Your task to perform on an android device: Open my contact list Image 0: 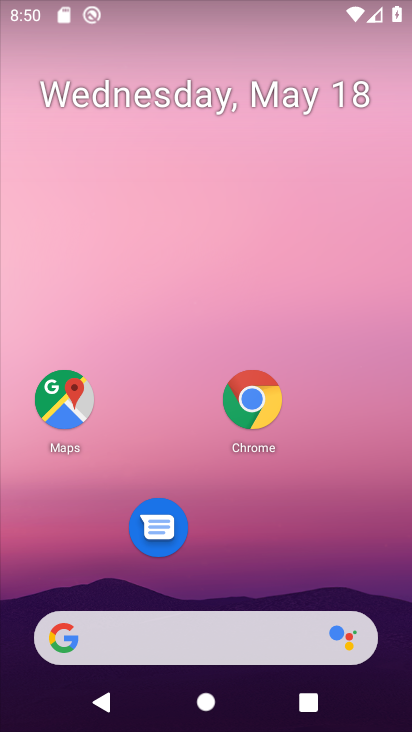
Step 0: drag from (260, 464) to (246, 81)
Your task to perform on an android device: Open my contact list Image 1: 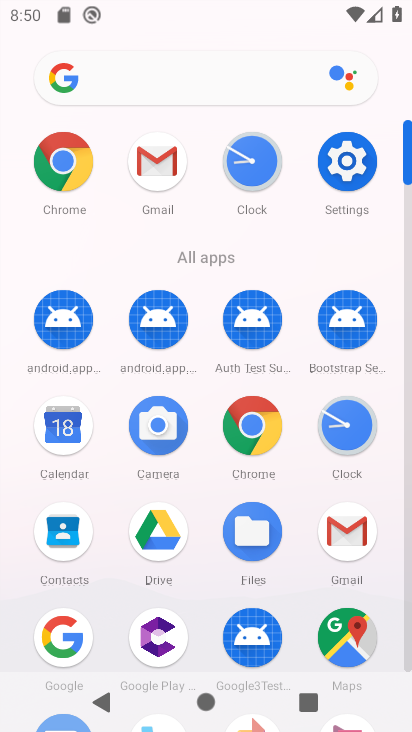
Step 1: click (66, 537)
Your task to perform on an android device: Open my contact list Image 2: 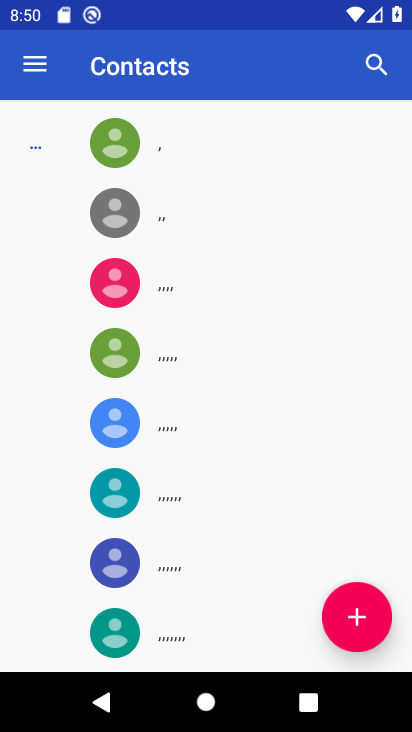
Step 2: task complete